Your task to perform on an android device: toggle data saver in the chrome app Image 0: 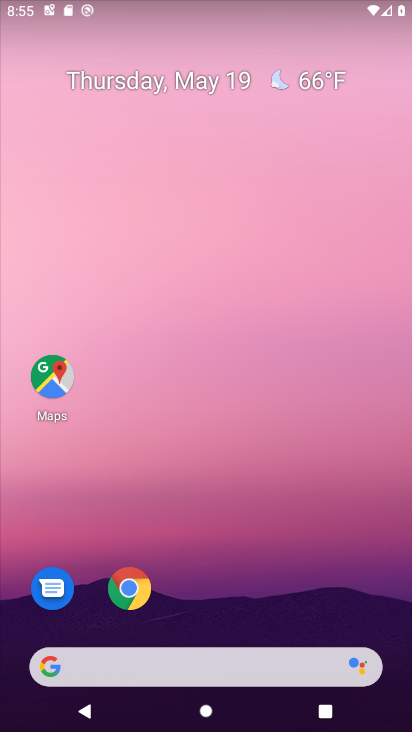
Step 0: drag from (392, 622) to (387, 320)
Your task to perform on an android device: toggle data saver in the chrome app Image 1: 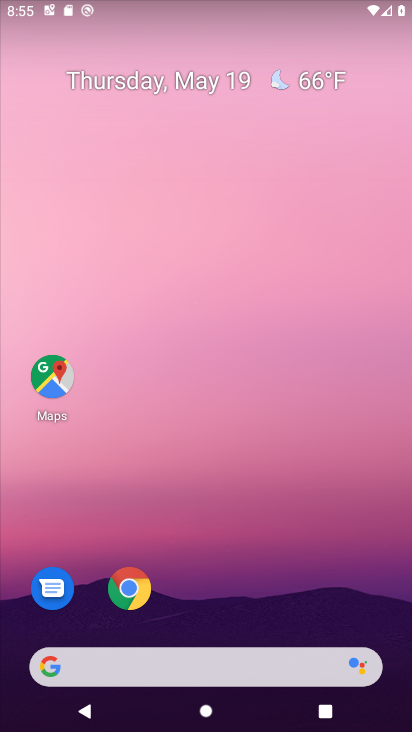
Step 1: drag from (366, 612) to (363, 260)
Your task to perform on an android device: toggle data saver in the chrome app Image 2: 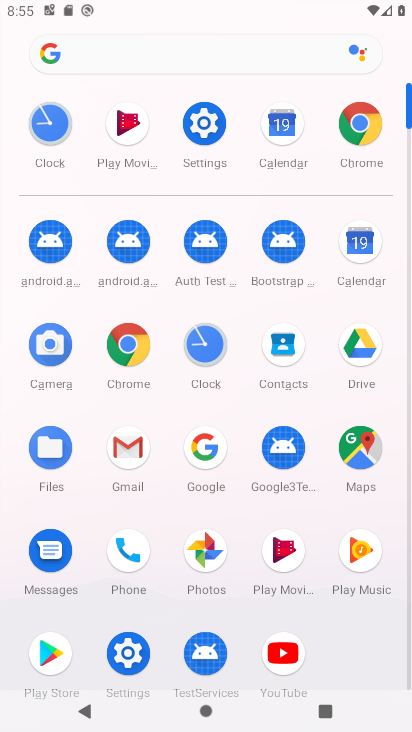
Step 2: click (128, 357)
Your task to perform on an android device: toggle data saver in the chrome app Image 3: 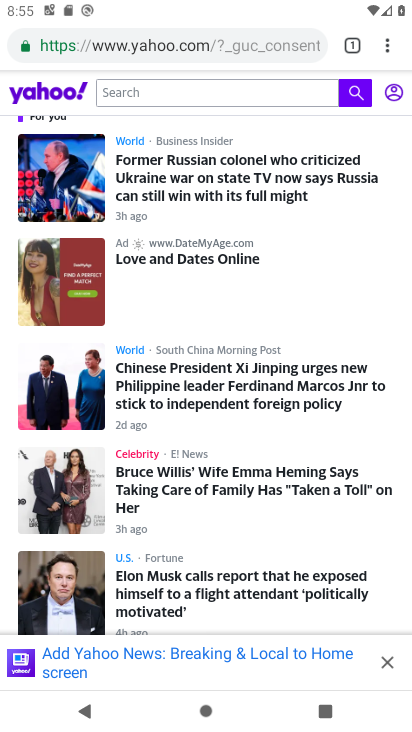
Step 3: click (389, 57)
Your task to perform on an android device: toggle data saver in the chrome app Image 4: 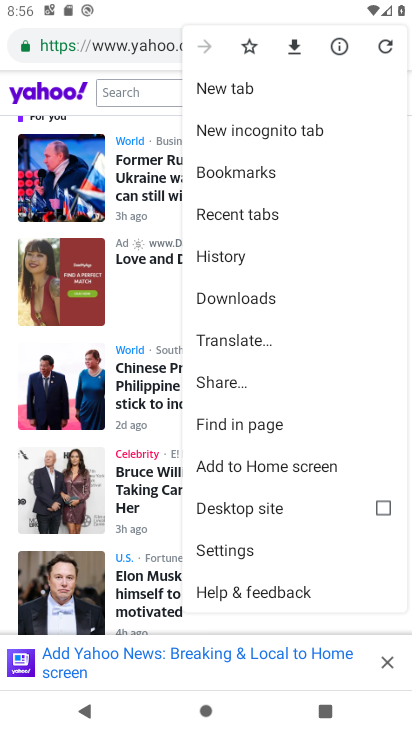
Step 4: click (161, 301)
Your task to perform on an android device: toggle data saver in the chrome app Image 5: 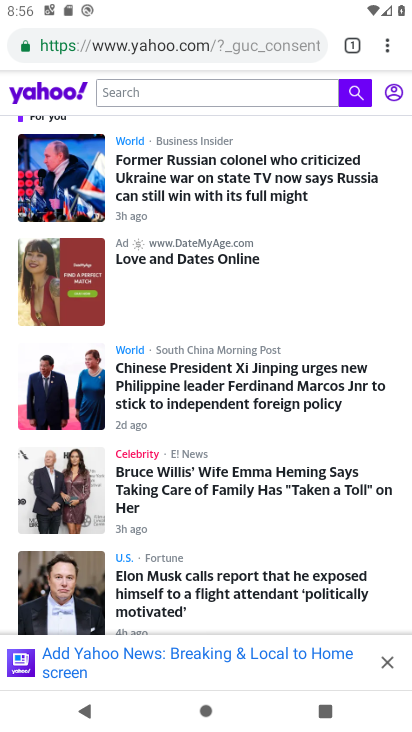
Step 5: click (392, 44)
Your task to perform on an android device: toggle data saver in the chrome app Image 6: 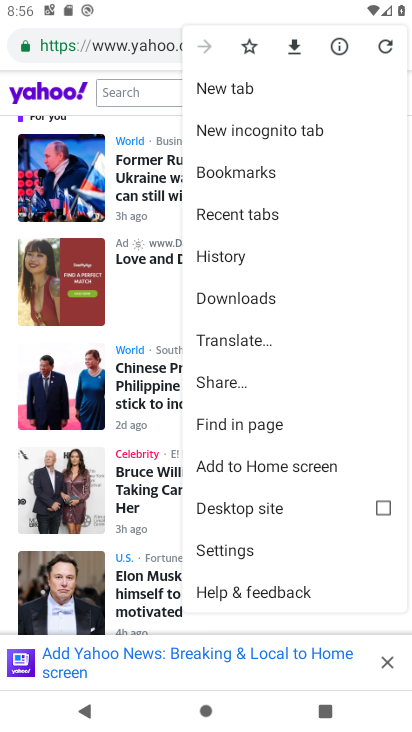
Step 6: click (285, 549)
Your task to perform on an android device: toggle data saver in the chrome app Image 7: 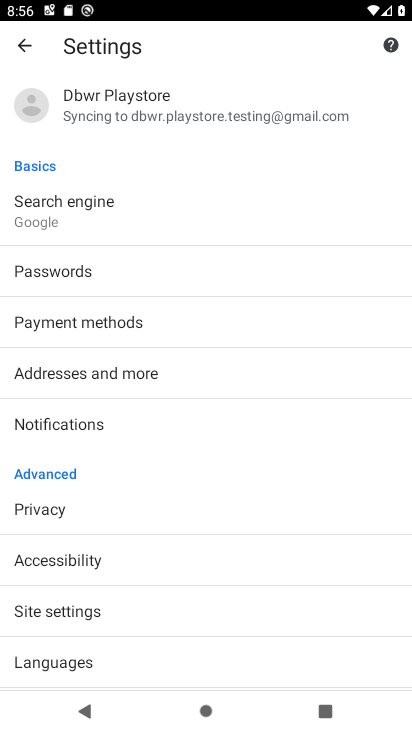
Step 7: drag from (284, 565) to (292, 438)
Your task to perform on an android device: toggle data saver in the chrome app Image 8: 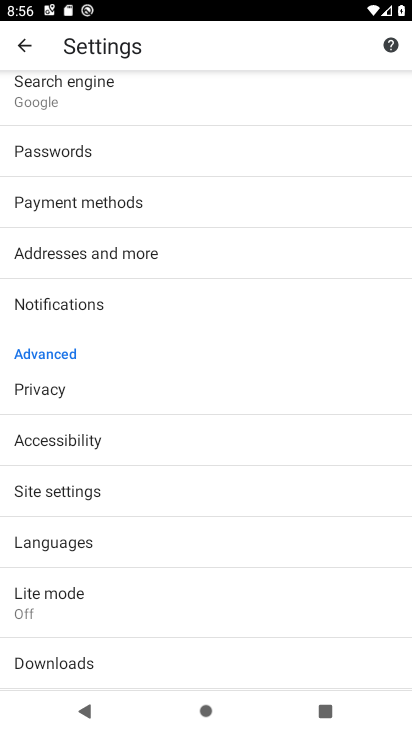
Step 8: click (222, 590)
Your task to perform on an android device: toggle data saver in the chrome app Image 9: 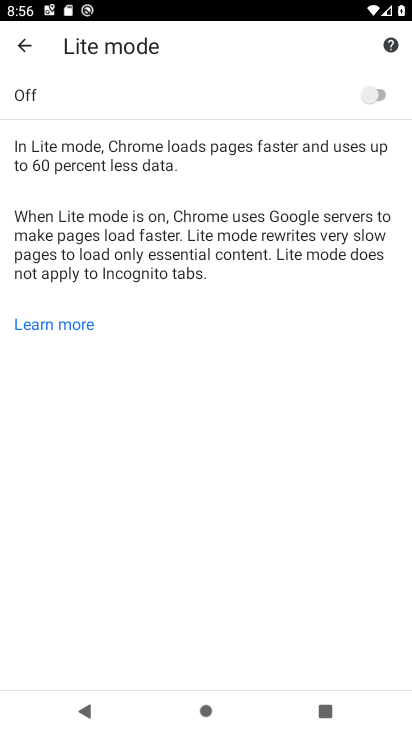
Step 9: click (374, 90)
Your task to perform on an android device: toggle data saver in the chrome app Image 10: 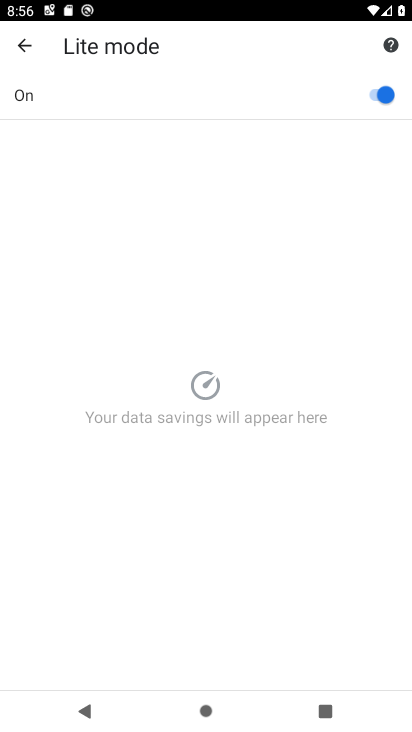
Step 10: task complete